Your task to perform on an android device: Open the Play Movies app and select the watchlist tab. Image 0: 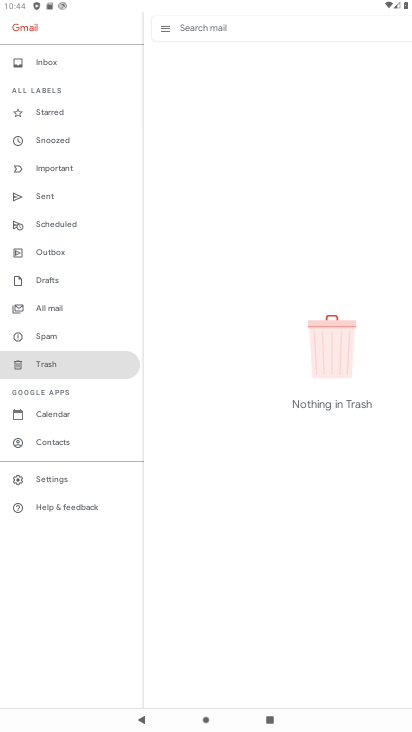
Step 0: press home button
Your task to perform on an android device: Open the Play Movies app and select the watchlist tab. Image 1: 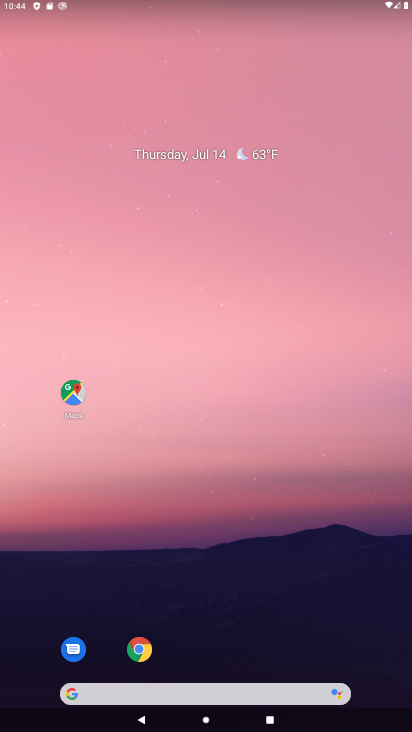
Step 1: drag from (342, 619) to (295, 195)
Your task to perform on an android device: Open the Play Movies app and select the watchlist tab. Image 2: 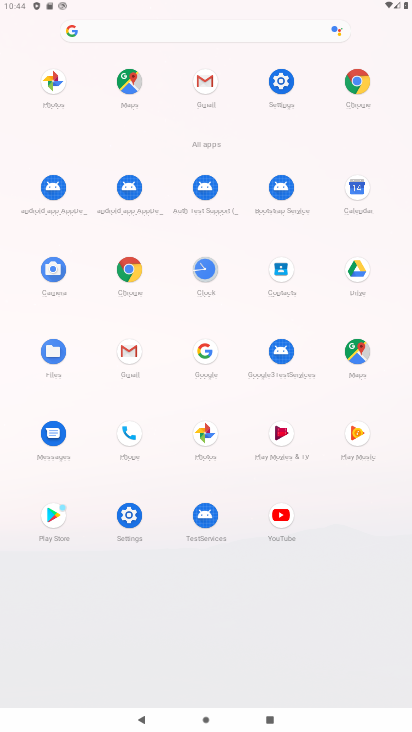
Step 2: click (281, 435)
Your task to perform on an android device: Open the Play Movies app and select the watchlist tab. Image 3: 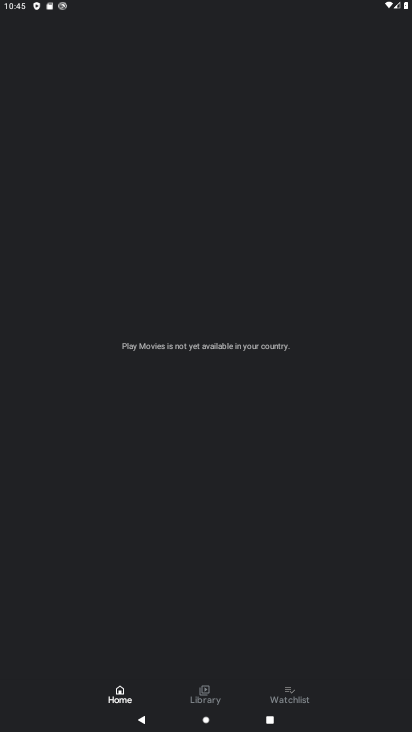
Step 3: click (287, 699)
Your task to perform on an android device: Open the Play Movies app and select the watchlist tab. Image 4: 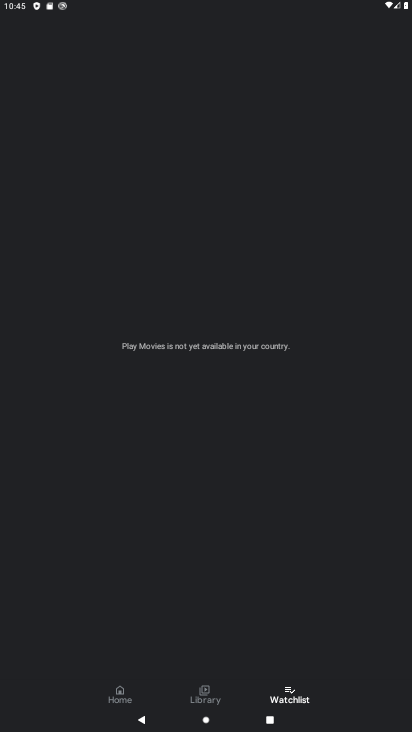
Step 4: task complete